Your task to perform on an android device: Open network settings Image 0: 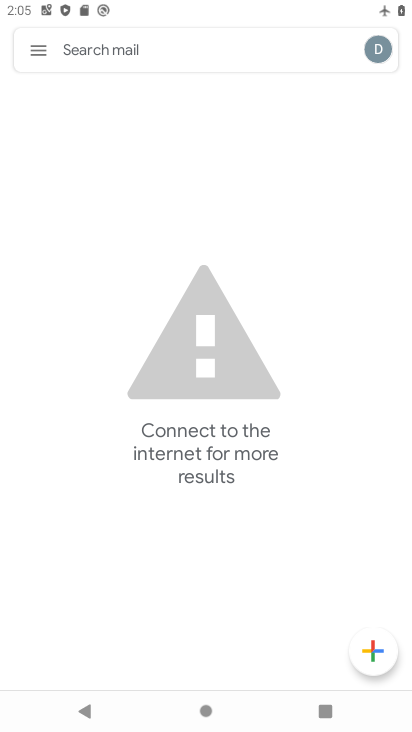
Step 0: press home button
Your task to perform on an android device: Open network settings Image 1: 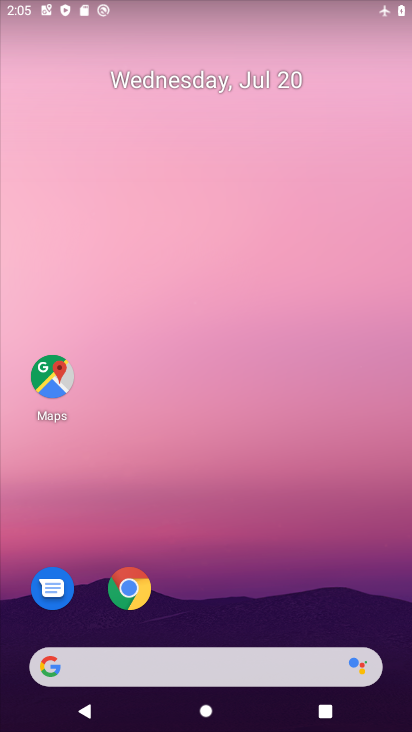
Step 1: drag from (286, 591) to (384, 1)
Your task to perform on an android device: Open network settings Image 2: 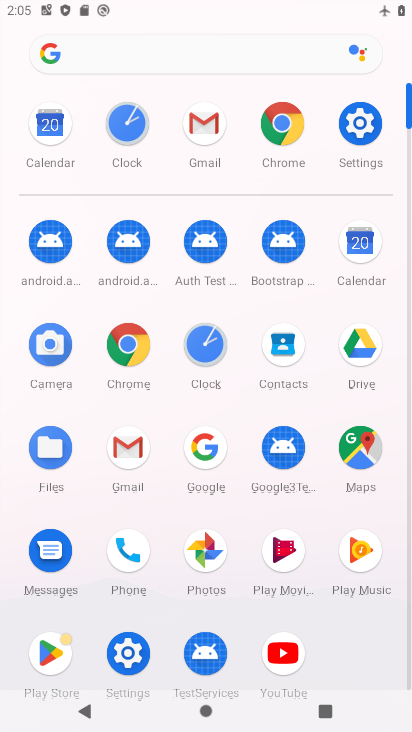
Step 2: click (358, 121)
Your task to perform on an android device: Open network settings Image 3: 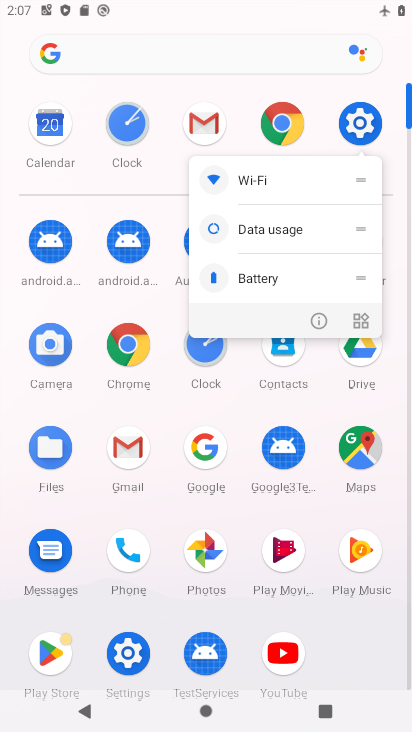
Step 3: click (366, 124)
Your task to perform on an android device: Open network settings Image 4: 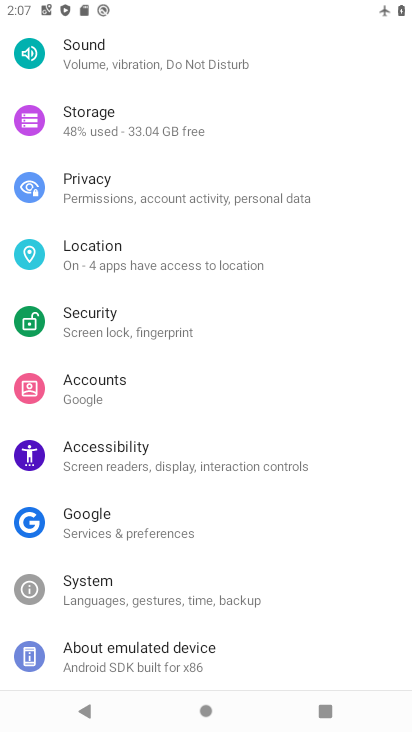
Step 4: drag from (94, 78) to (87, 565)
Your task to perform on an android device: Open network settings Image 5: 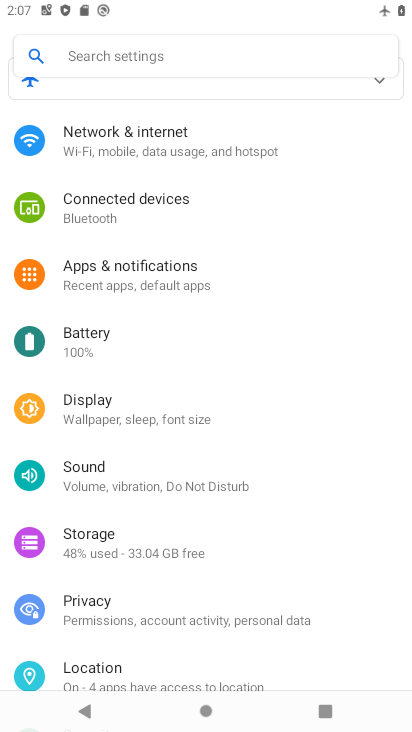
Step 5: click (108, 144)
Your task to perform on an android device: Open network settings Image 6: 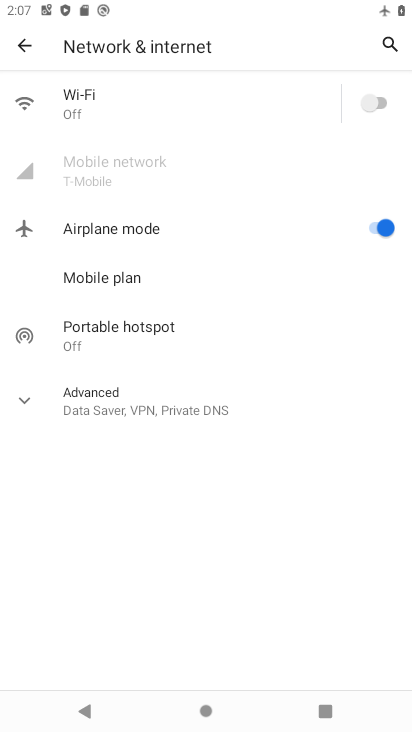
Step 6: task complete